Your task to perform on an android device: turn on data saver in the chrome app Image 0: 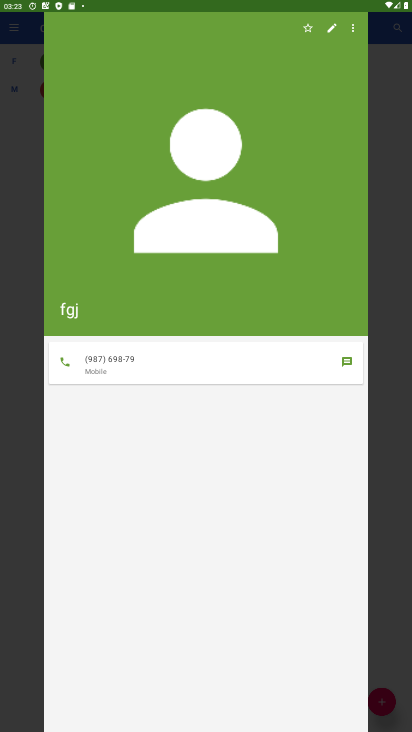
Step 0: press home button
Your task to perform on an android device: turn on data saver in the chrome app Image 1: 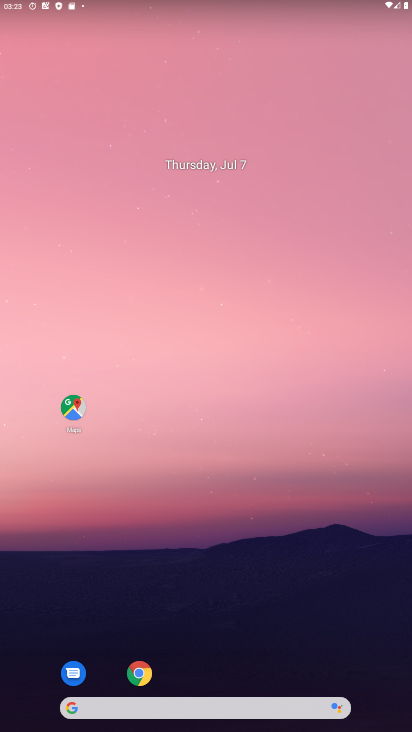
Step 1: click (144, 674)
Your task to perform on an android device: turn on data saver in the chrome app Image 2: 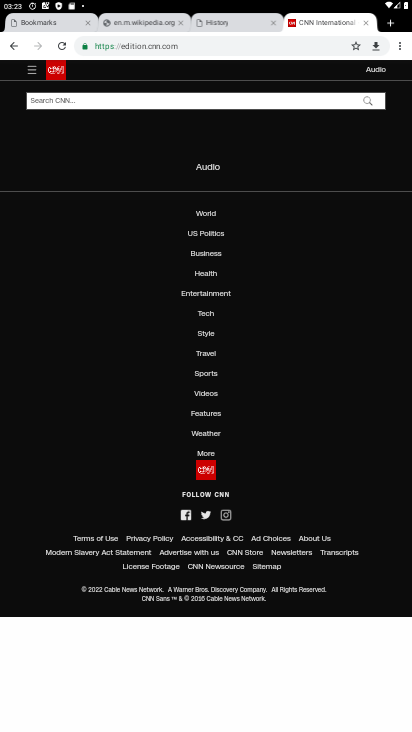
Step 2: click (394, 46)
Your task to perform on an android device: turn on data saver in the chrome app Image 3: 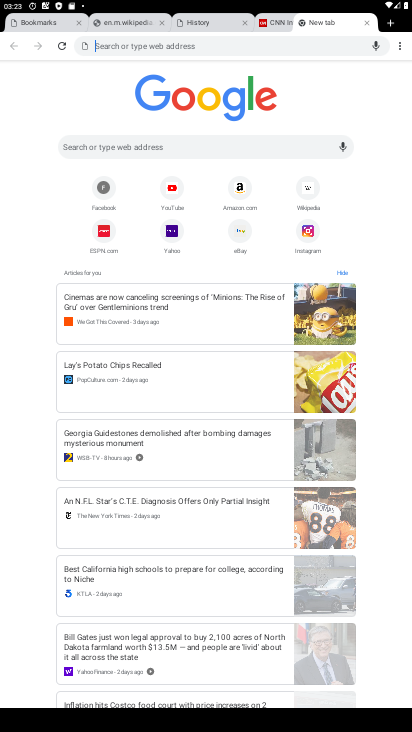
Step 3: click (396, 51)
Your task to perform on an android device: turn on data saver in the chrome app Image 4: 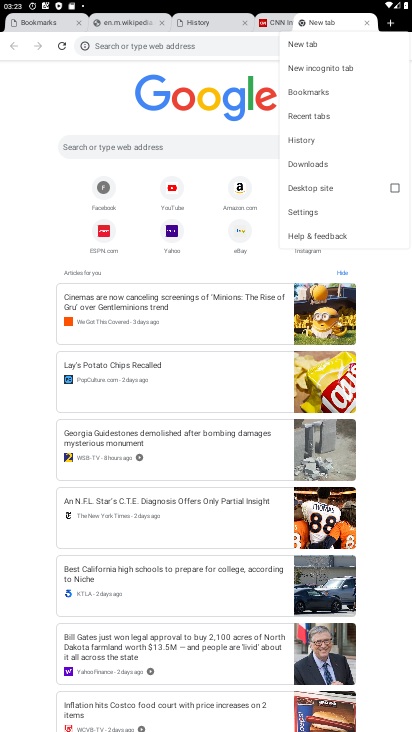
Step 4: click (318, 216)
Your task to perform on an android device: turn on data saver in the chrome app Image 5: 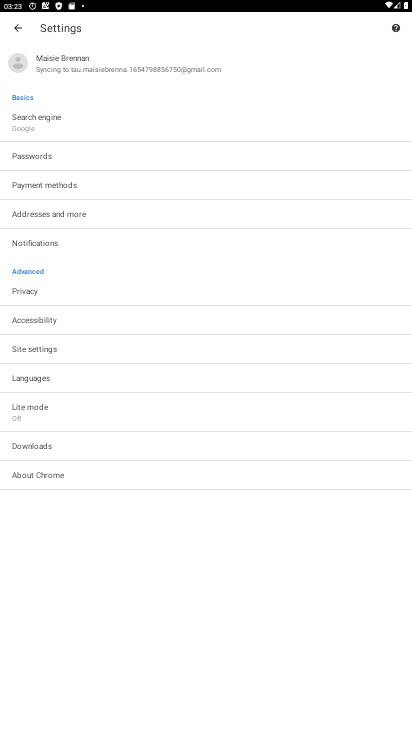
Step 5: click (84, 418)
Your task to perform on an android device: turn on data saver in the chrome app Image 6: 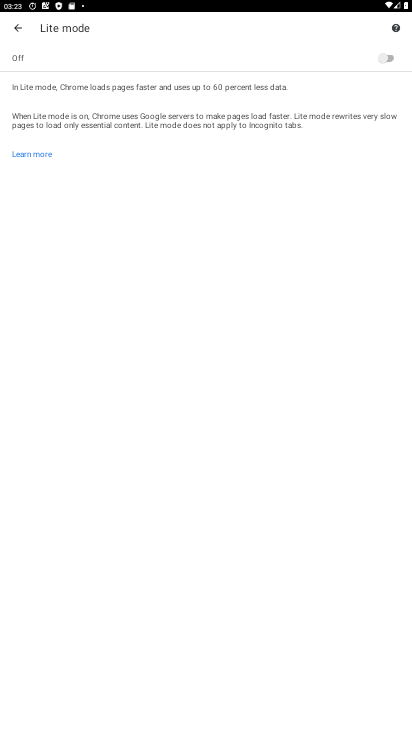
Step 6: click (394, 60)
Your task to perform on an android device: turn on data saver in the chrome app Image 7: 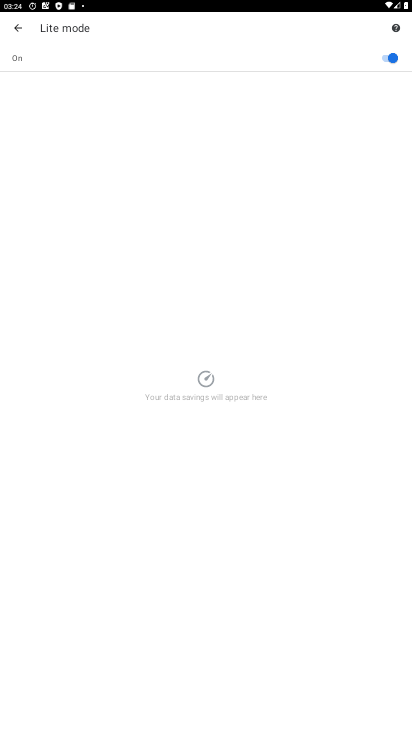
Step 7: task complete